Your task to perform on an android device: set default search engine in the chrome app Image 0: 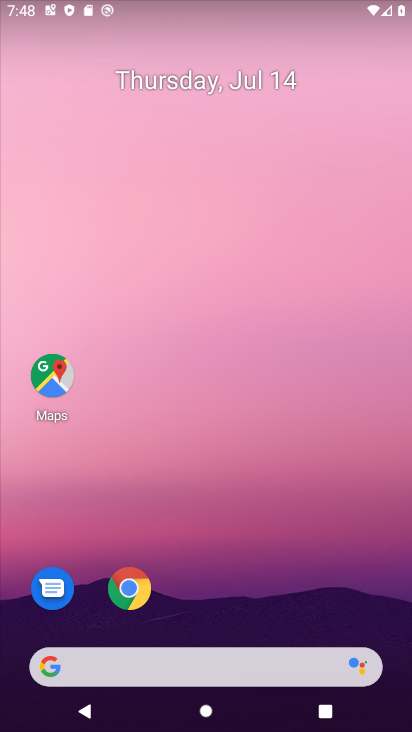
Step 0: drag from (245, 540) to (164, 151)
Your task to perform on an android device: set default search engine in the chrome app Image 1: 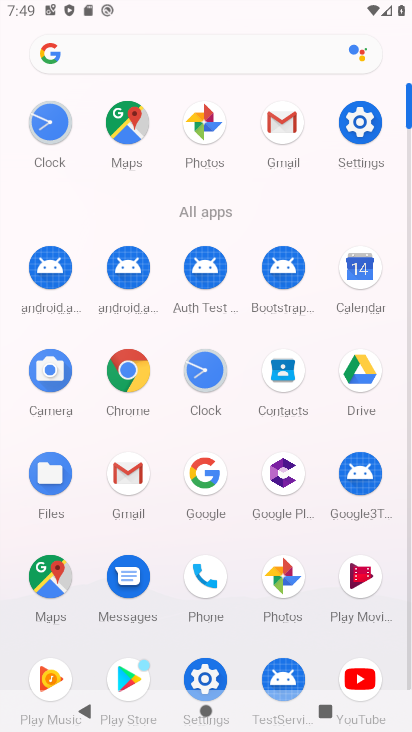
Step 1: click (127, 375)
Your task to perform on an android device: set default search engine in the chrome app Image 2: 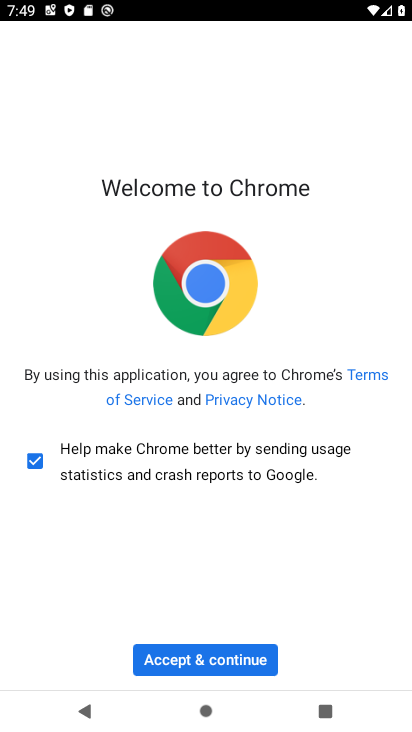
Step 2: click (228, 651)
Your task to perform on an android device: set default search engine in the chrome app Image 3: 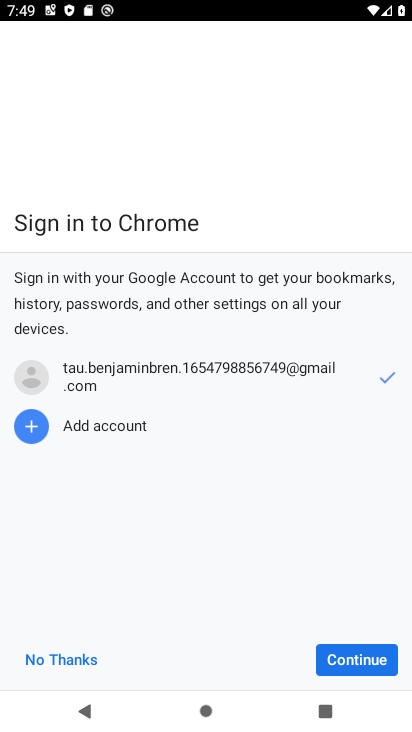
Step 3: click (368, 661)
Your task to perform on an android device: set default search engine in the chrome app Image 4: 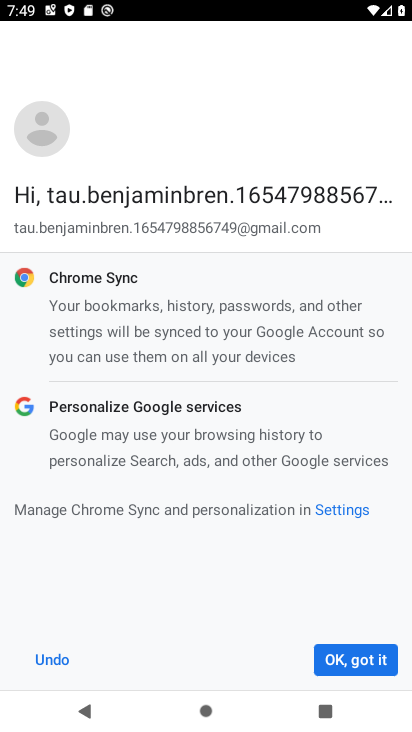
Step 4: click (368, 661)
Your task to perform on an android device: set default search engine in the chrome app Image 5: 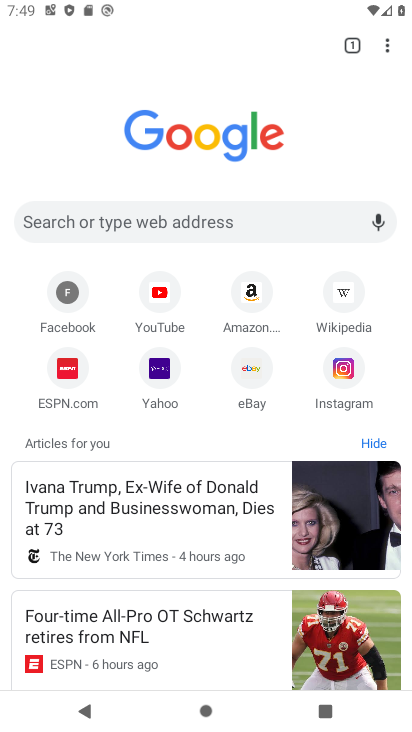
Step 5: drag from (385, 47) to (224, 388)
Your task to perform on an android device: set default search engine in the chrome app Image 6: 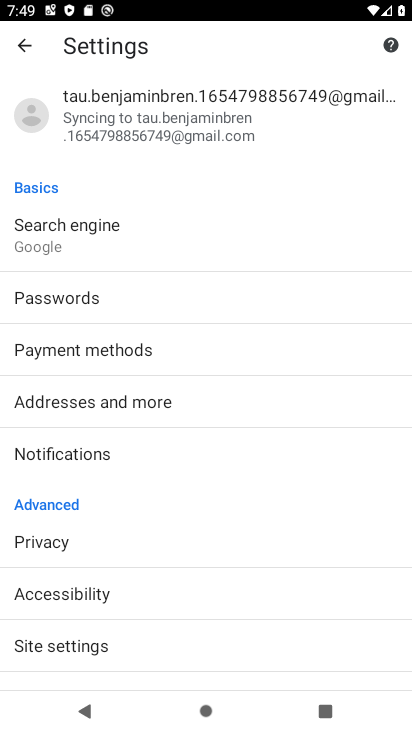
Step 6: click (54, 195)
Your task to perform on an android device: set default search engine in the chrome app Image 7: 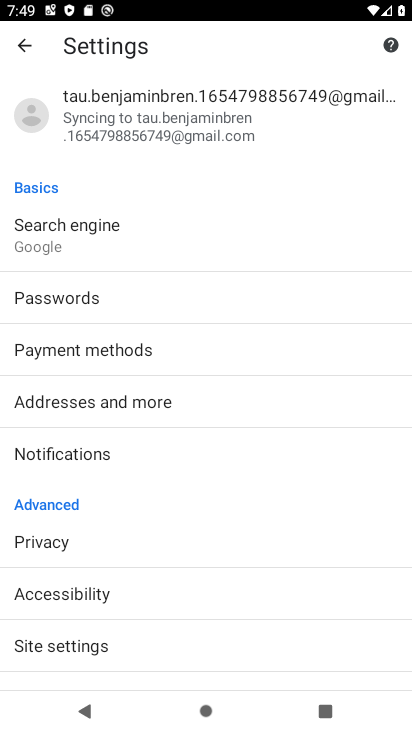
Step 7: click (78, 222)
Your task to perform on an android device: set default search engine in the chrome app Image 8: 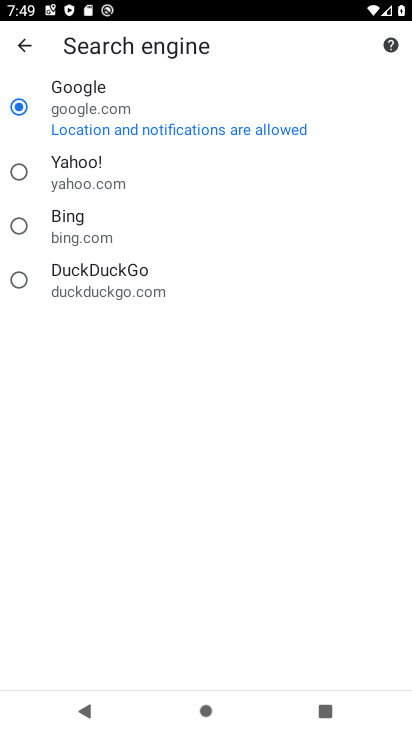
Step 8: task complete